Your task to perform on an android device: turn on showing notifications on the lock screen Image 0: 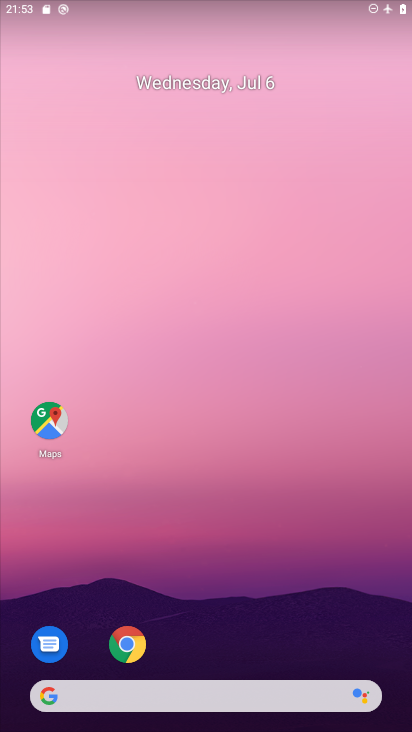
Step 0: drag from (241, 647) to (257, 171)
Your task to perform on an android device: turn on showing notifications on the lock screen Image 1: 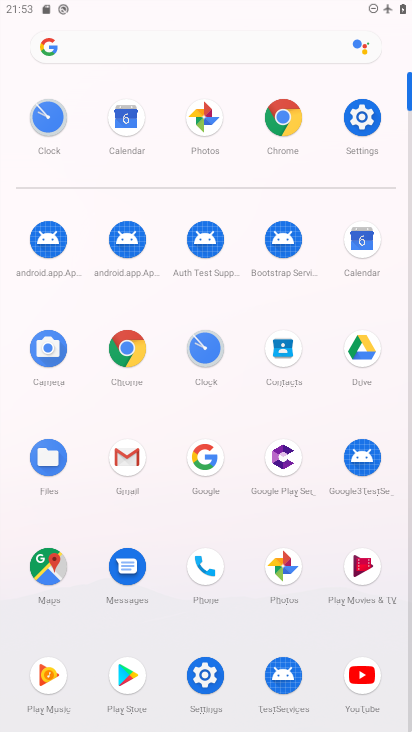
Step 1: click (353, 121)
Your task to perform on an android device: turn on showing notifications on the lock screen Image 2: 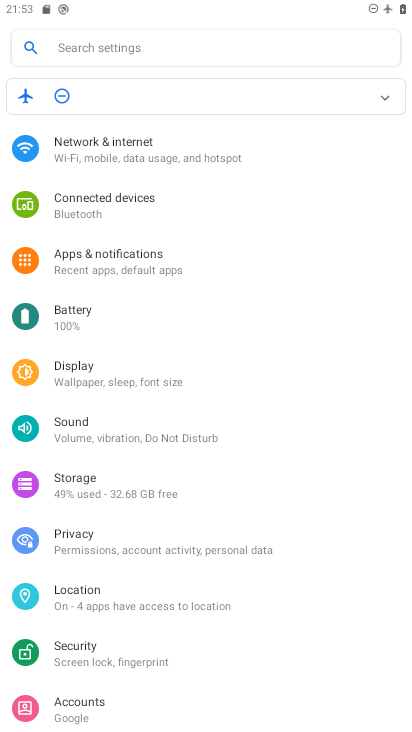
Step 2: click (146, 269)
Your task to perform on an android device: turn on showing notifications on the lock screen Image 3: 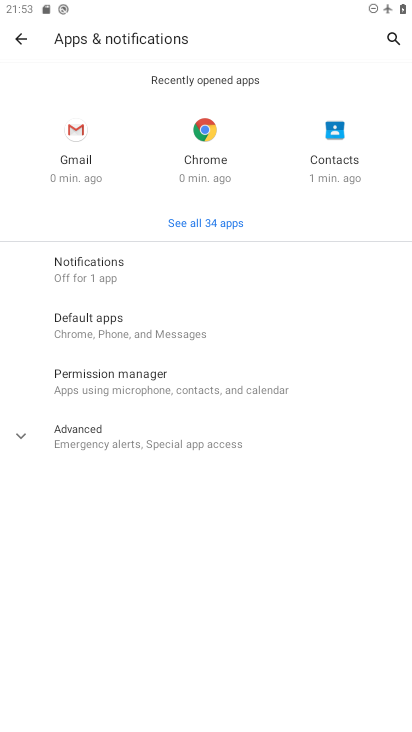
Step 3: click (169, 275)
Your task to perform on an android device: turn on showing notifications on the lock screen Image 4: 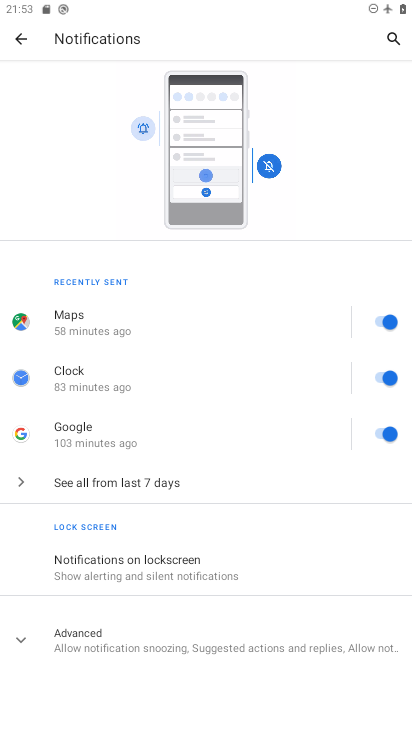
Step 4: click (177, 573)
Your task to perform on an android device: turn on showing notifications on the lock screen Image 5: 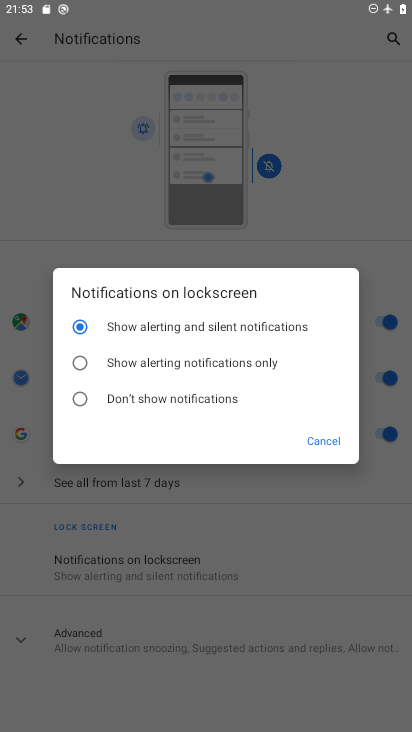
Step 5: task complete